Your task to perform on an android device: Open Chrome and go to settings Image 0: 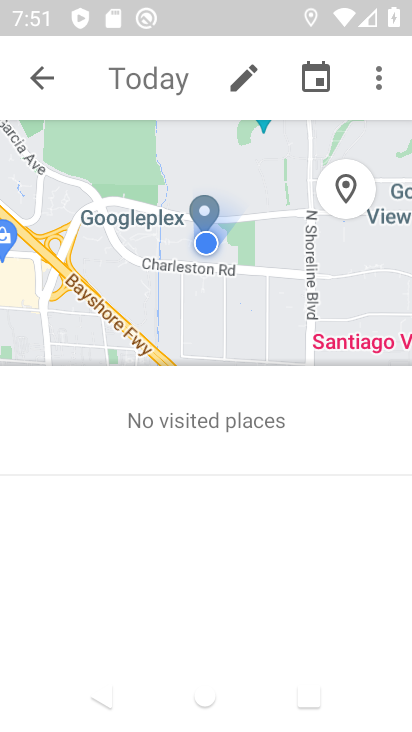
Step 0: press home button
Your task to perform on an android device: Open Chrome and go to settings Image 1: 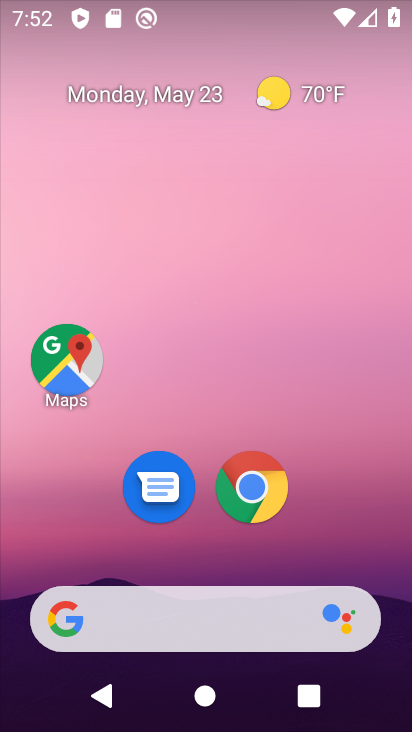
Step 1: click (254, 484)
Your task to perform on an android device: Open Chrome and go to settings Image 2: 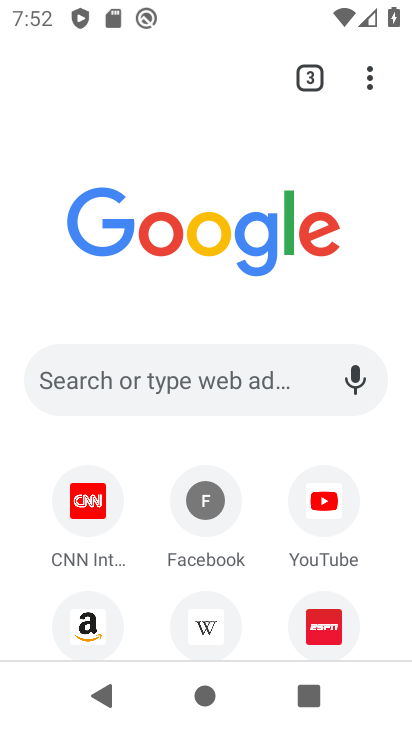
Step 2: click (369, 76)
Your task to perform on an android device: Open Chrome and go to settings Image 3: 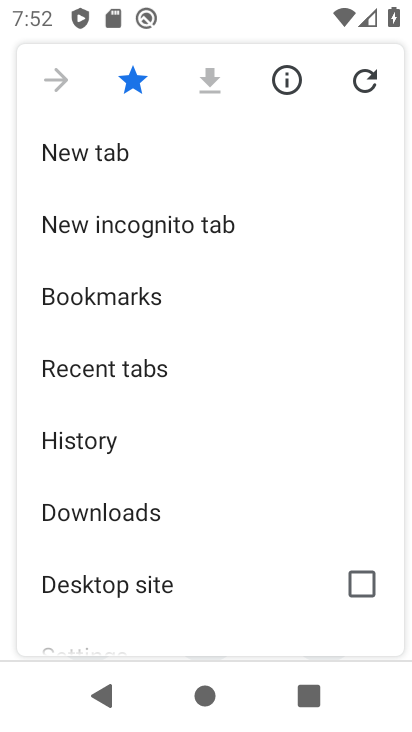
Step 3: drag from (141, 585) to (148, 137)
Your task to perform on an android device: Open Chrome and go to settings Image 4: 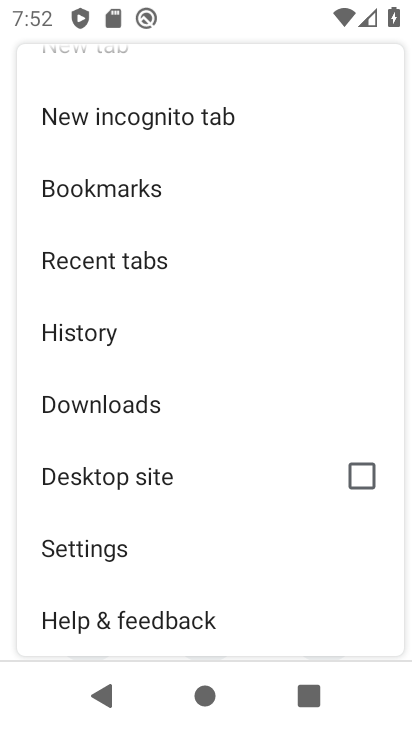
Step 4: click (78, 554)
Your task to perform on an android device: Open Chrome and go to settings Image 5: 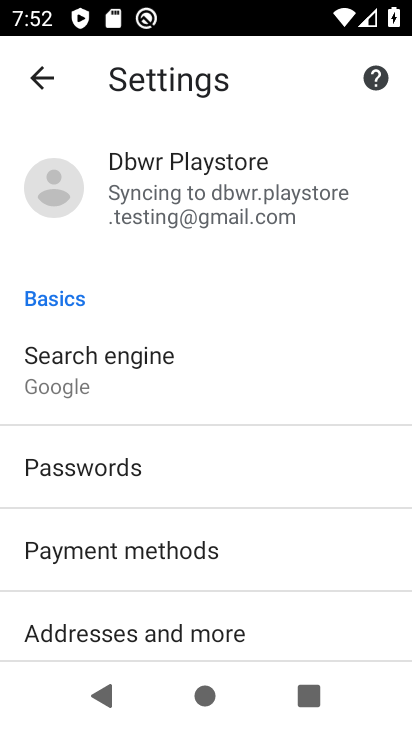
Step 5: task complete